Your task to perform on an android device: Open Chrome and go to settings Image 0: 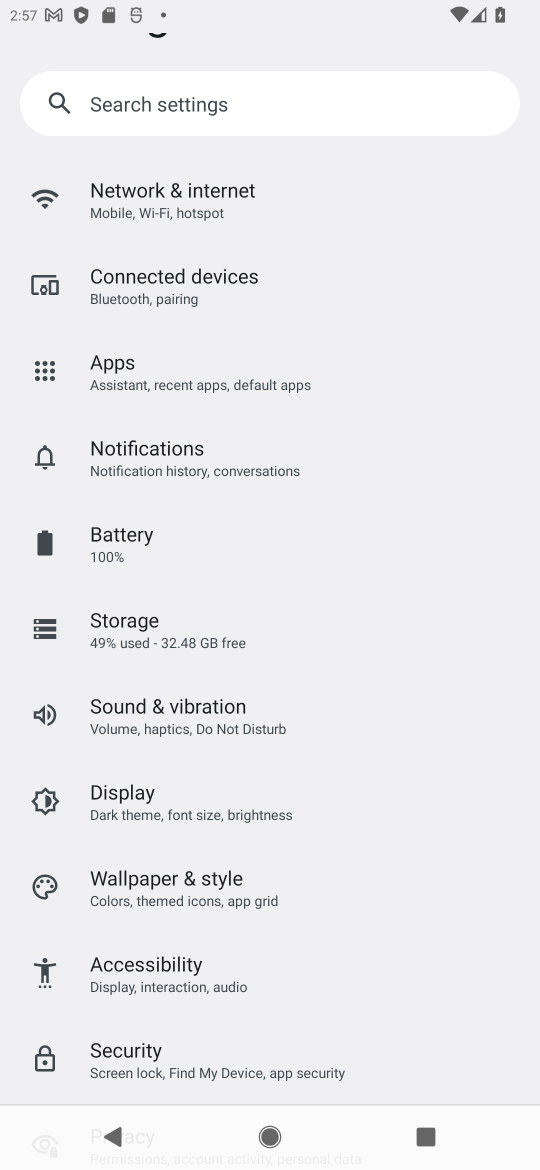
Step 0: drag from (248, 919) to (332, 432)
Your task to perform on an android device: Open Chrome and go to settings Image 1: 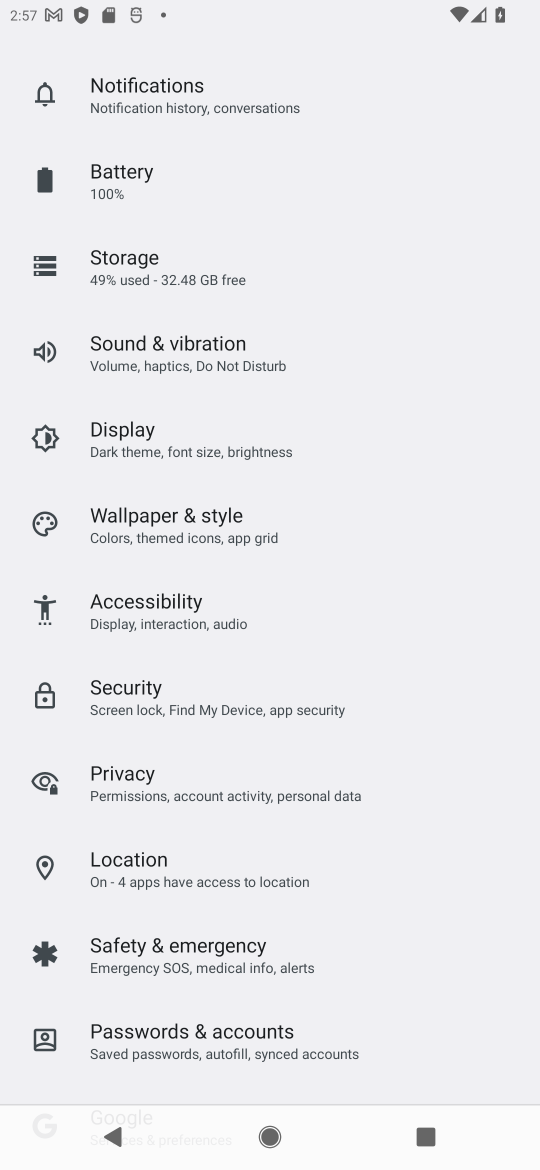
Step 1: task complete